Your task to perform on an android device: open a bookmark in the chrome app Image 0: 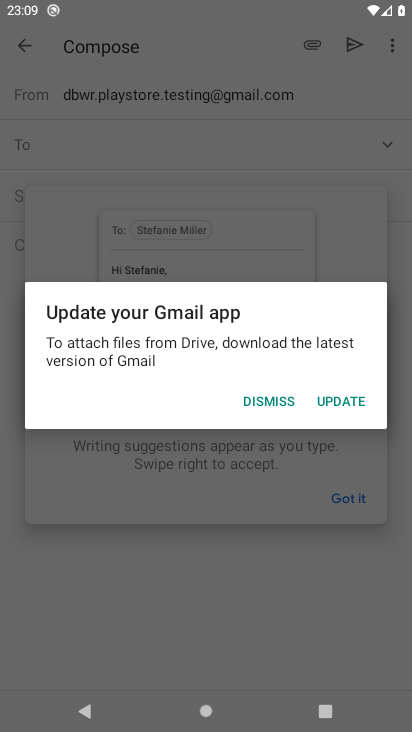
Step 0: press home button
Your task to perform on an android device: open a bookmark in the chrome app Image 1: 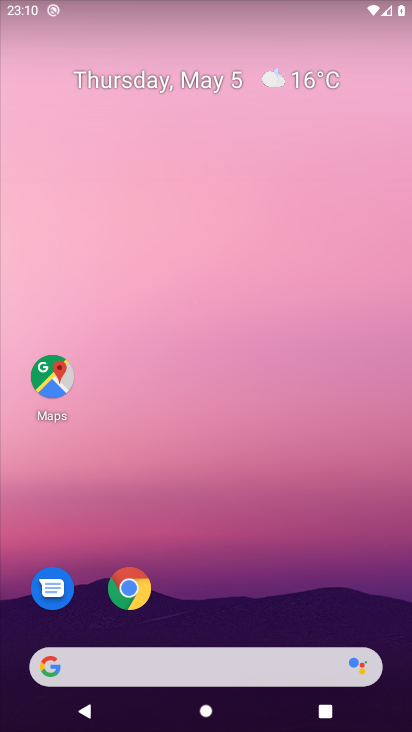
Step 1: click (144, 593)
Your task to perform on an android device: open a bookmark in the chrome app Image 2: 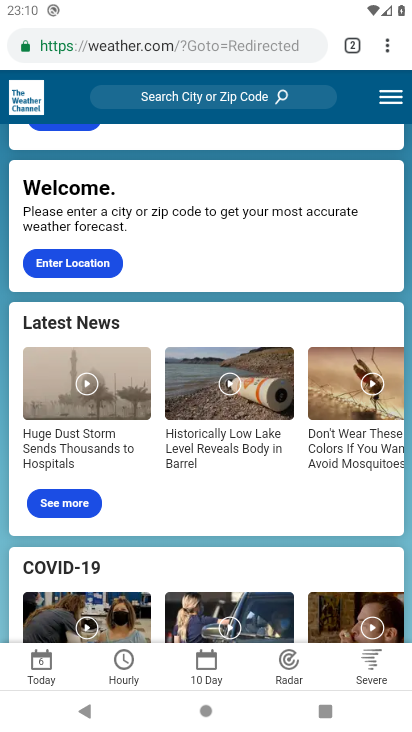
Step 2: drag from (395, 65) to (283, 178)
Your task to perform on an android device: open a bookmark in the chrome app Image 3: 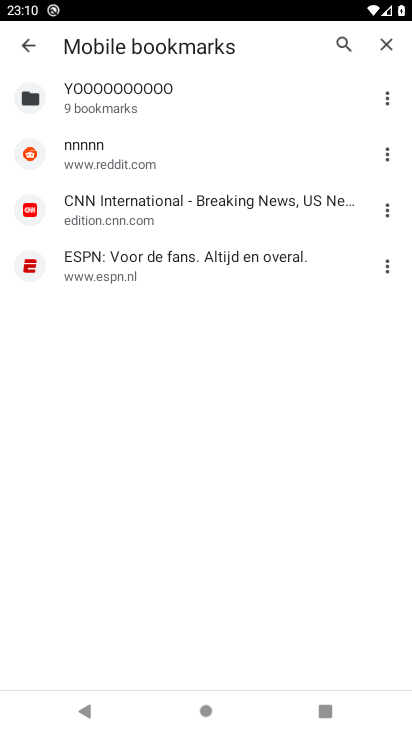
Step 3: click (233, 160)
Your task to perform on an android device: open a bookmark in the chrome app Image 4: 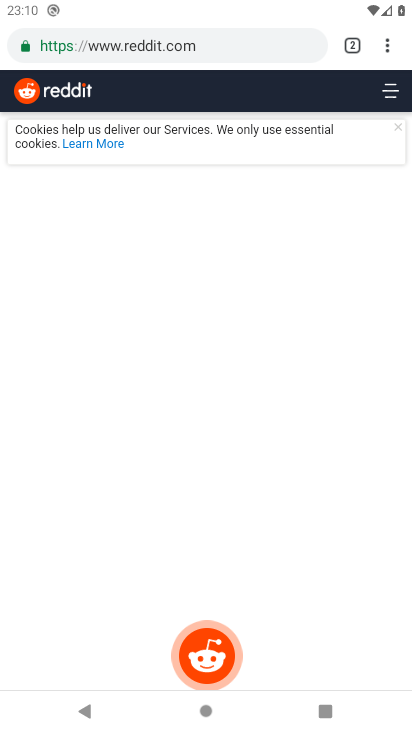
Step 4: task complete